Your task to perform on an android device: What is the recent news? Image 0: 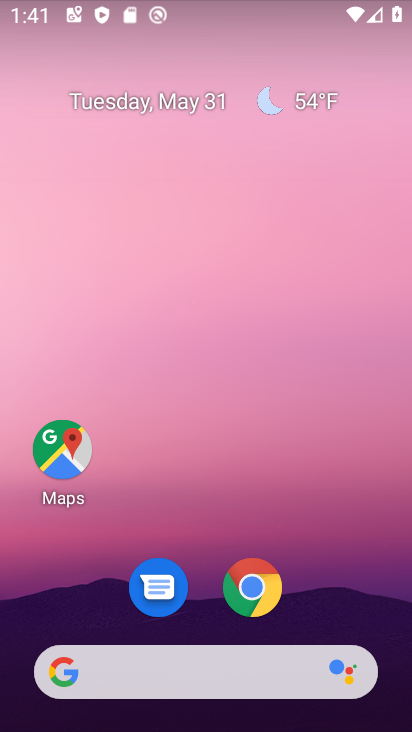
Step 0: click (242, 151)
Your task to perform on an android device: What is the recent news? Image 1: 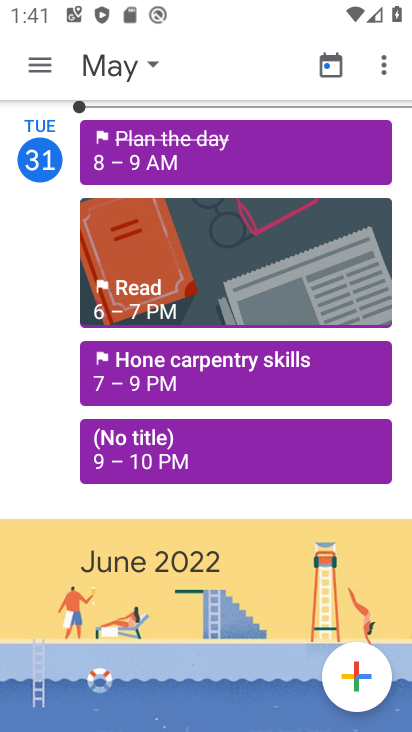
Step 1: press home button
Your task to perform on an android device: What is the recent news? Image 2: 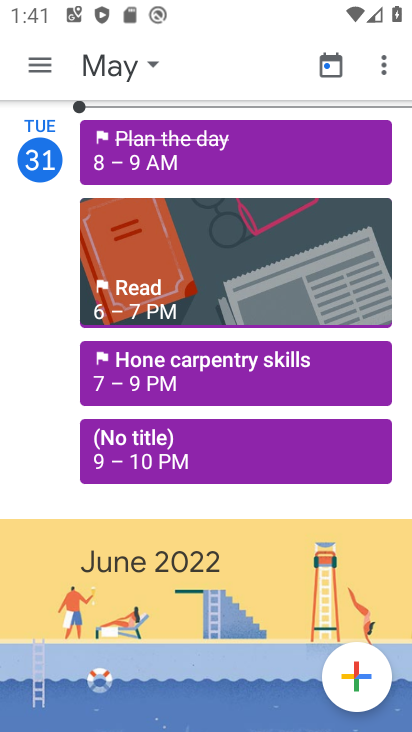
Step 2: drag from (204, 586) to (333, 140)
Your task to perform on an android device: What is the recent news? Image 3: 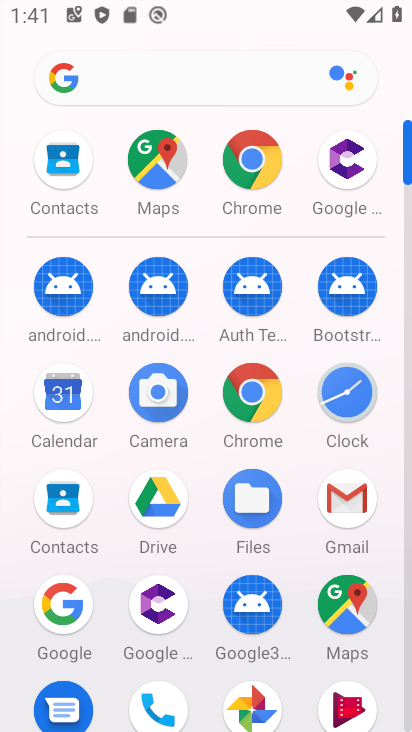
Step 3: drag from (205, 596) to (131, 116)
Your task to perform on an android device: What is the recent news? Image 4: 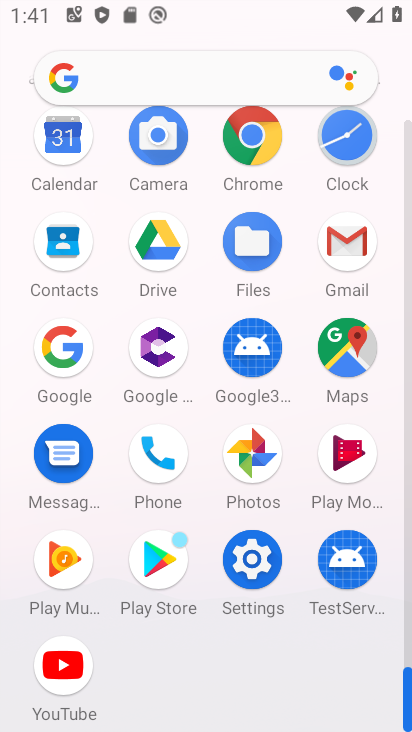
Step 4: click (256, 557)
Your task to perform on an android device: What is the recent news? Image 5: 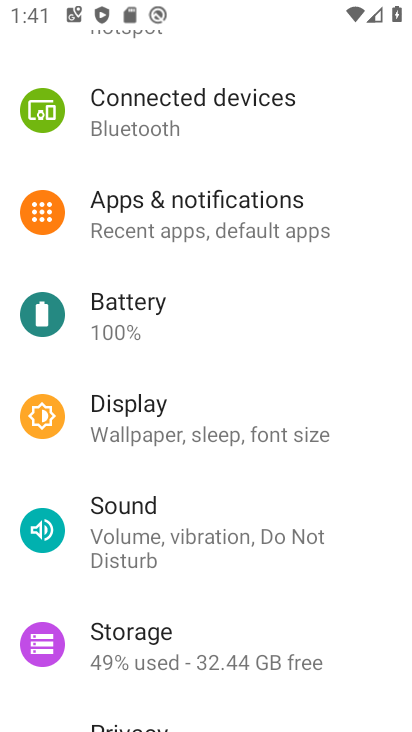
Step 5: drag from (212, 231) to (254, 731)
Your task to perform on an android device: What is the recent news? Image 6: 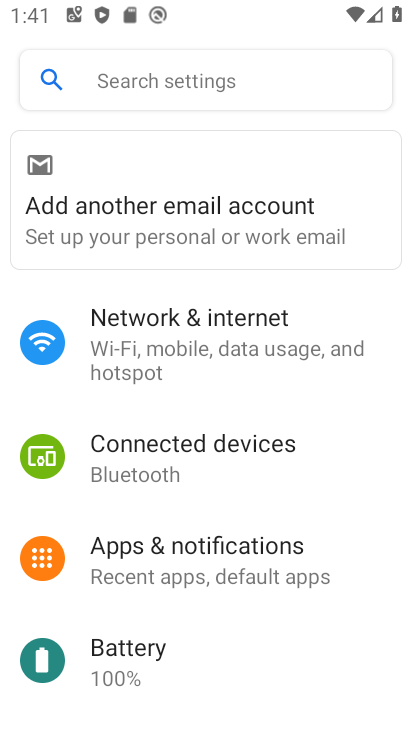
Step 6: drag from (212, 639) to (306, 728)
Your task to perform on an android device: What is the recent news? Image 7: 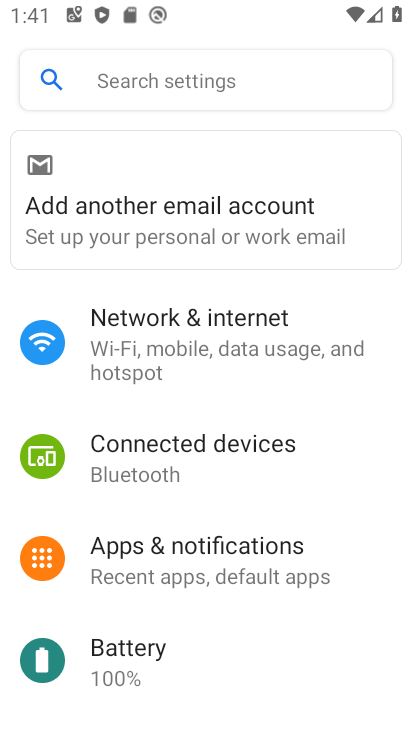
Step 7: press home button
Your task to perform on an android device: What is the recent news? Image 8: 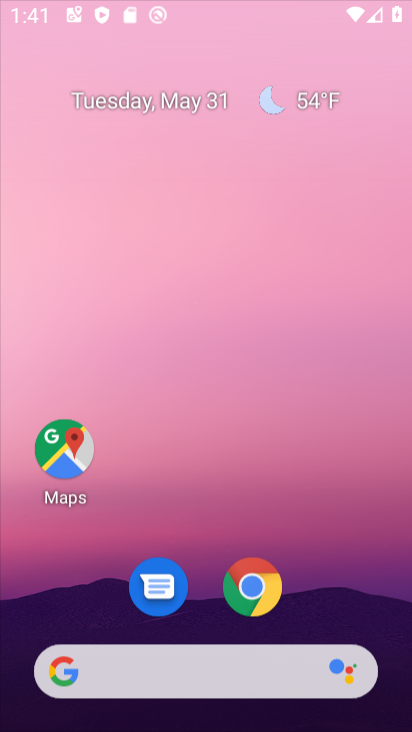
Step 8: drag from (222, 615) to (317, 102)
Your task to perform on an android device: What is the recent news? Image 9: 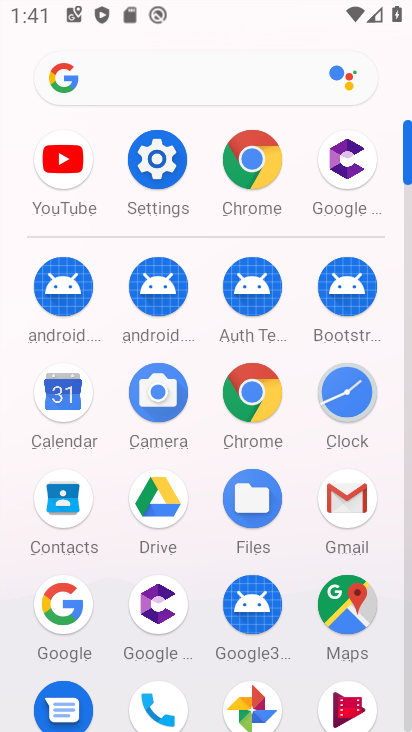
Step 9: click (107, 85)
Your task to perform on an android device: What is the recent news? Image 10: 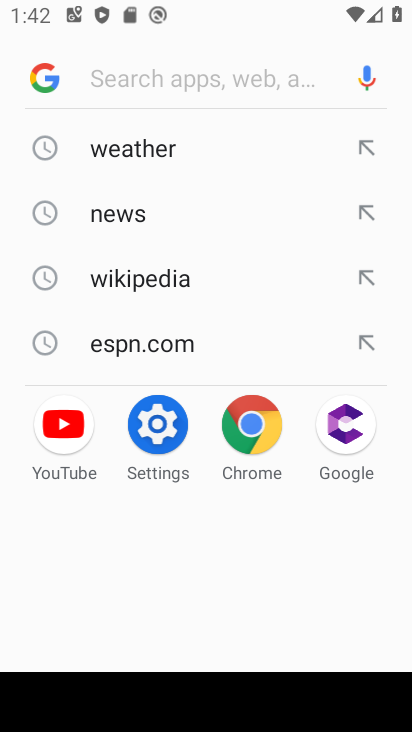
Step 10: type "recent news?"
Your task to perform on an android device: What is the recent news? Image 11: 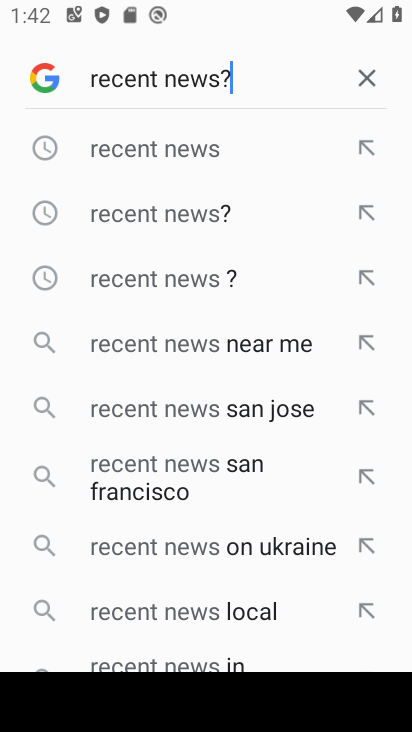
Step 11: type ""
Your task to perform on an android device: What is the recent news? Image 12: 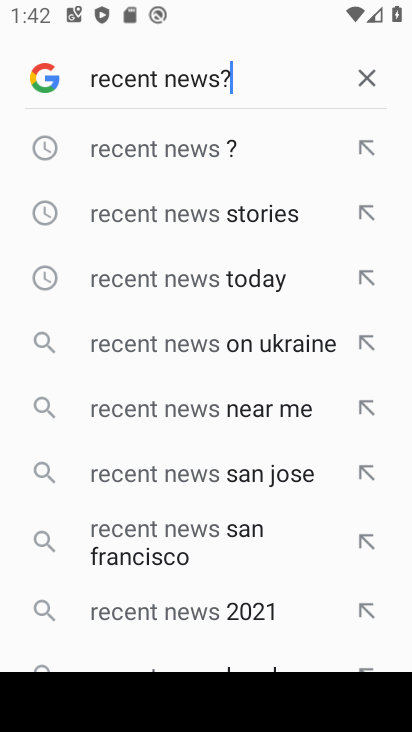
Step 12: click (148, 175)
Your task to perform on an android device: What is the recent news? Image 13: 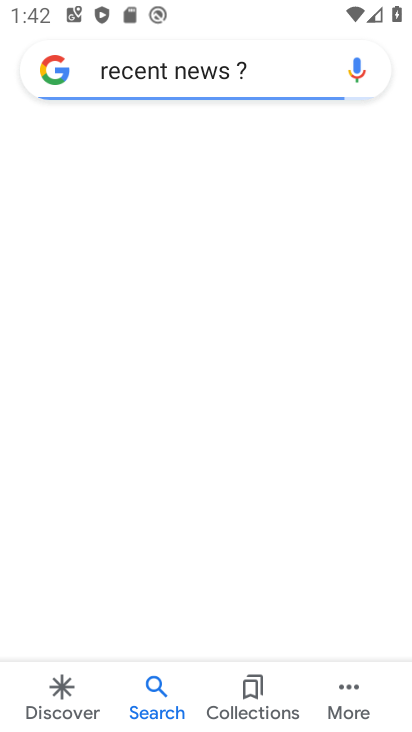
Step 13: task complete